Your task to perform on an android device: toggle notifications settings in the gmail app Image 0: 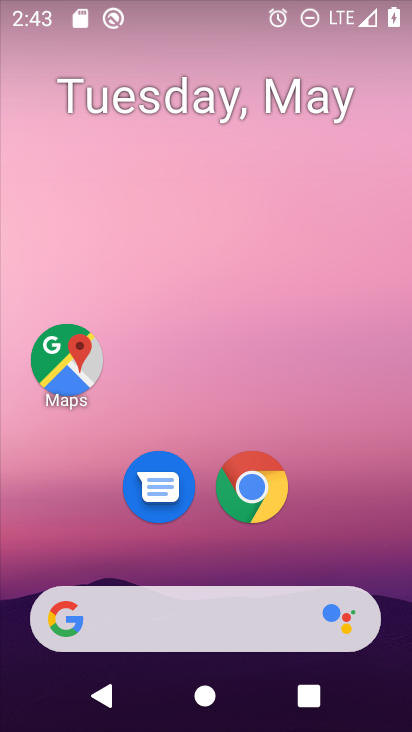
Step 0: drag from (82, 529) to (348, 185)
Your task to perform on an android device: toggle notifications settings in the gmail app Image 1: 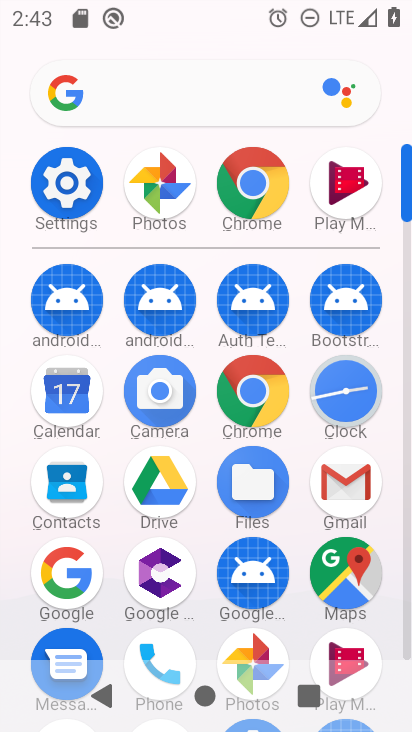
Step 1: click (314, 475)
Your task to perform on an android device: toggle notifications settings in the gmail app Image 2: 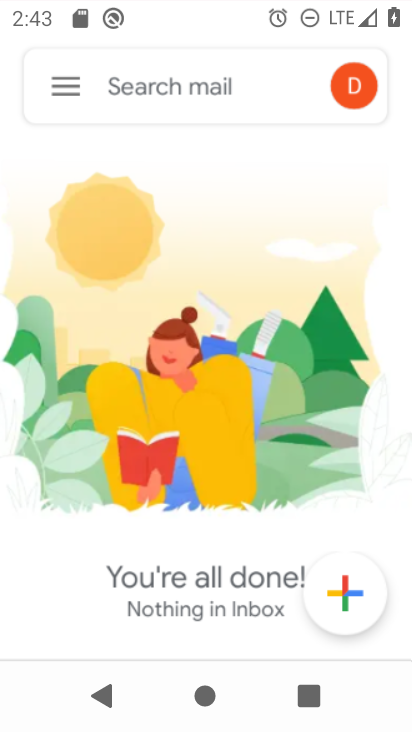
Step 2: click (319, 475)
Your task to perform on an android device: toggle notifications settings in the gmail app Image 3: 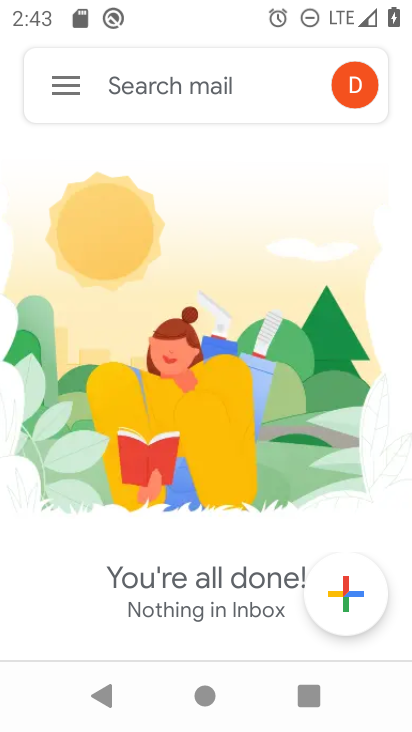
Step 3: click (61, 72)
Your task to perform on an android device: toggle notifications settings in the gmail app Image 4: 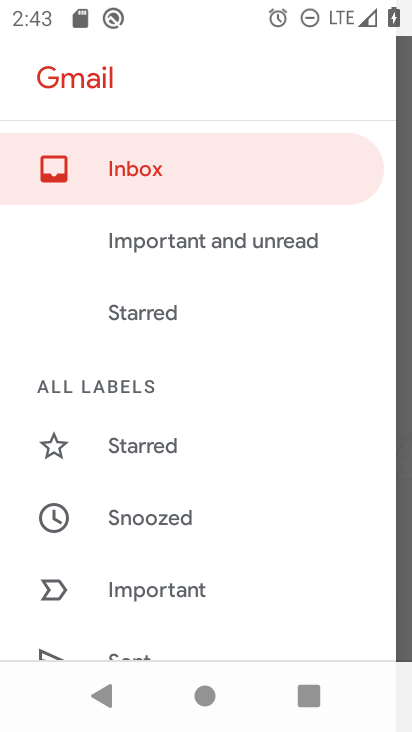
Step 4: drag from (133, 632) to (288, 86)
Your task to perform on an android device: toggle notifications settings in the gmail app Image 5: 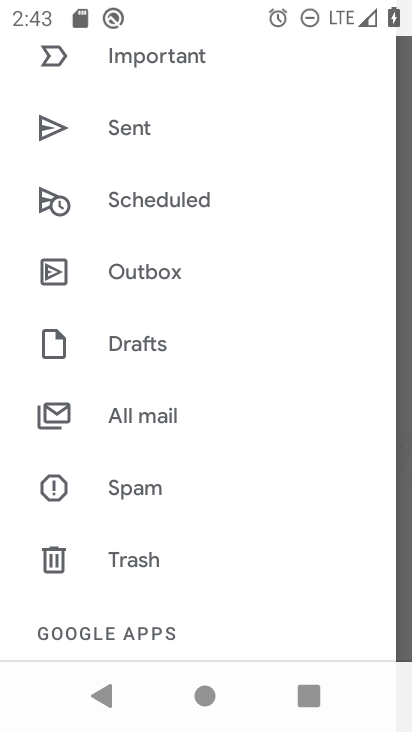
Step 5: drag from (99, 618) to (280, 147)
Your task to perform on an android device: toggle notifications settings in the gmail app Image 6: 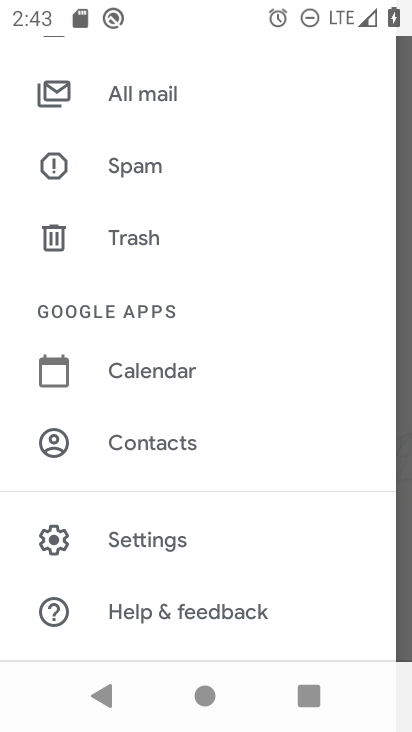
Step 6: click (121, 566)
Your task to perform on an android device: toggle notifications settings in the gmail app Image 7: 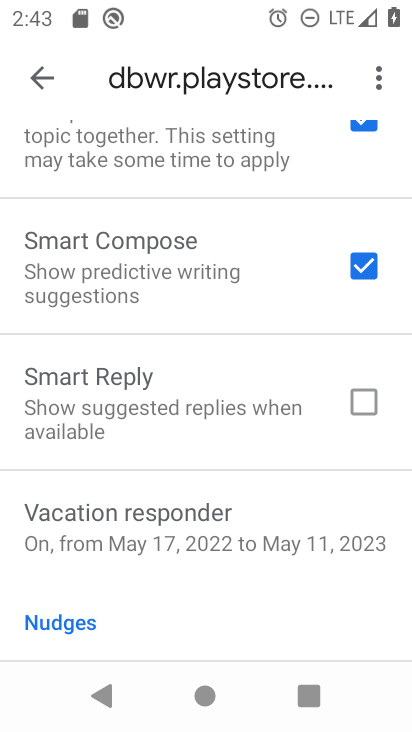
Step 7: drag from (262, 156) to (256, 577)
Your task to perform on an android device: toggle notifications settings in the gmail app Image 8: 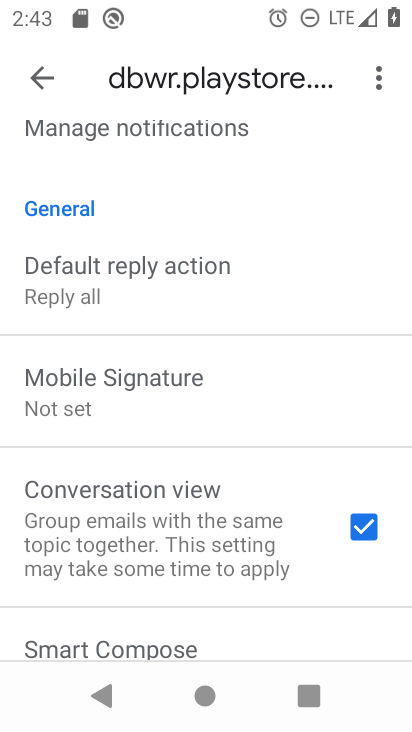
Step 8: drag from (211, 196) to (217, 582)
Your task to perform on an android device: toggle notifications settings in the gmail app Image 9: 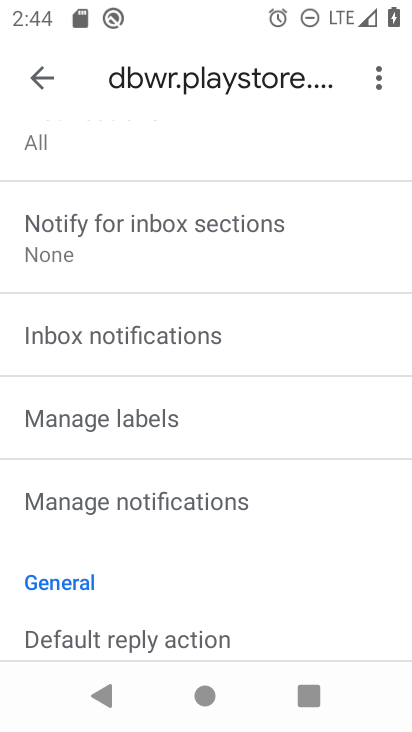
Step 9: click (207, 500)
Your task to perform on an android device: toggle notifications settings in the gmail app Image 10: 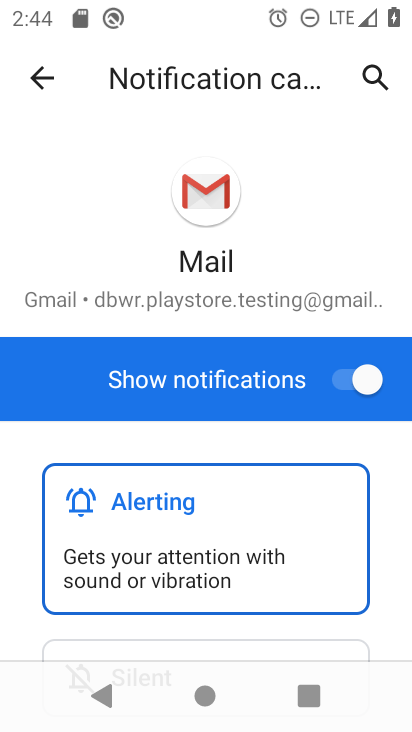
Step 10: click (361, 386)
Your task to perform on an android device: toggle notifications settings in the gmail app Image 11: 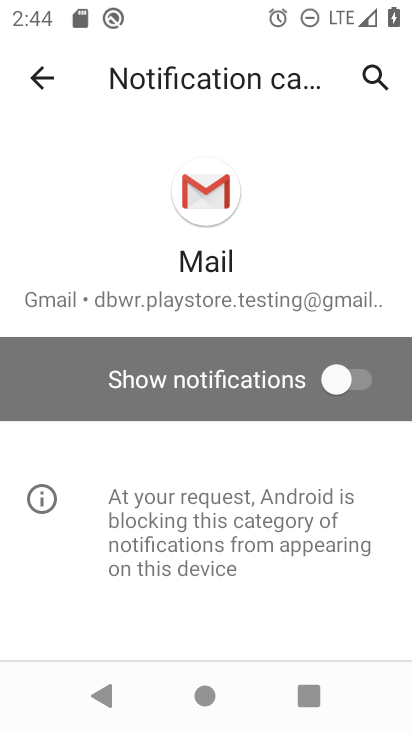
Step 11: task complete